Your task to perform on an android device: see tabs open on other devices in the chrome app Image 0: 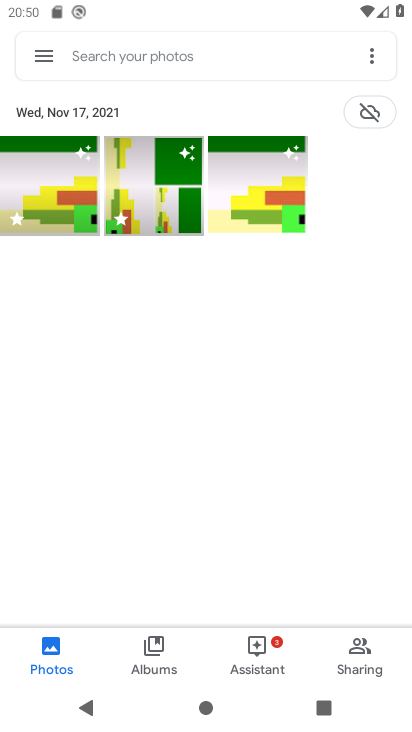
Step 0: press home button
Your task to perform on an android device: see tabs open on other devices in the chrome app Image 1: 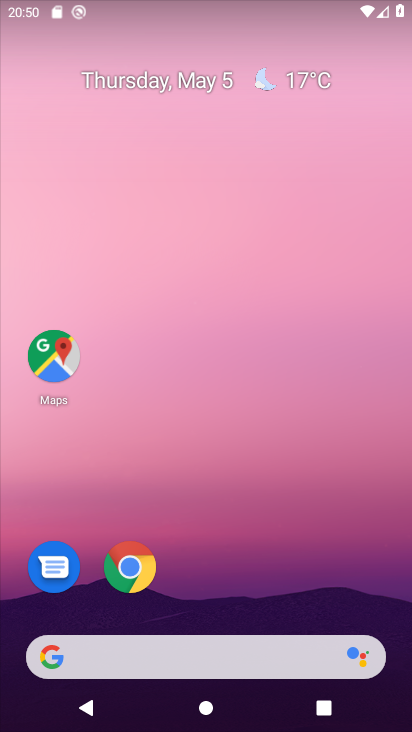
Step 1: drag from (228, 542) to (192, 20)
Your task to perform on an android device: see tabs open on other devices in the chrome app Image 2: 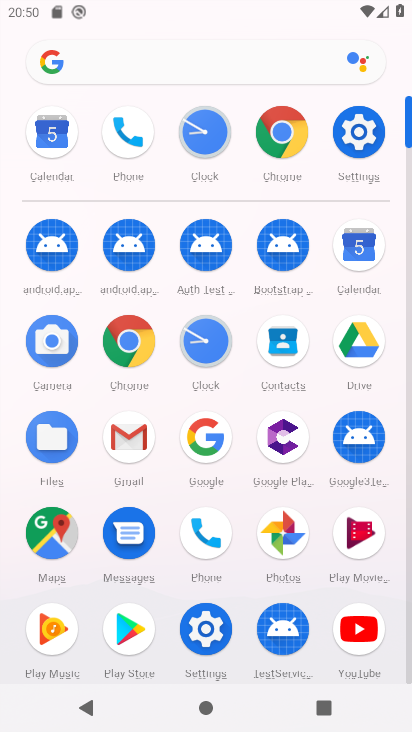
Step 2: click (276, 132)
Your task to perform on an android device: see tabs open on other devices in the chrome app Image 3: 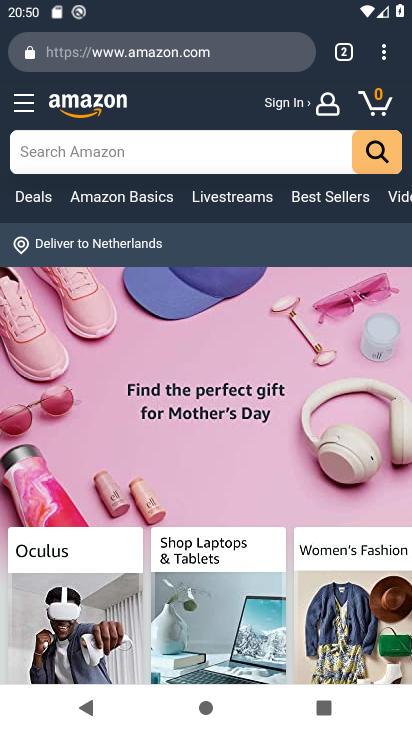
Step 3: task complete